Your task to perform on an android device: install app "Speedtest by Ookla" Image 0: 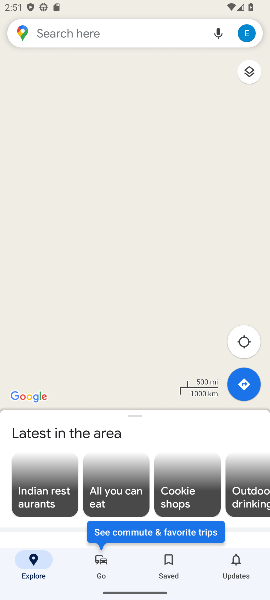
Step 0: press home button
Your task to perform on an android device: install app "Speedtest by Ookla" Image 1: 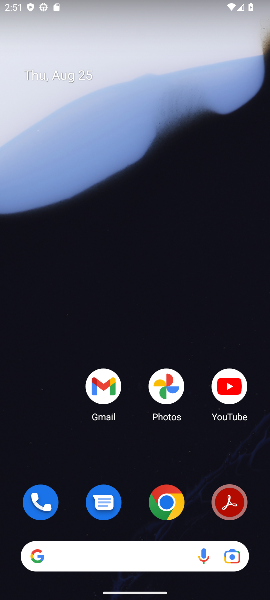
Step 1: drag from (131, 531) to (206, 3)
Your task to perform on an android device: install app "Speedtest by Ookla" Image 2: 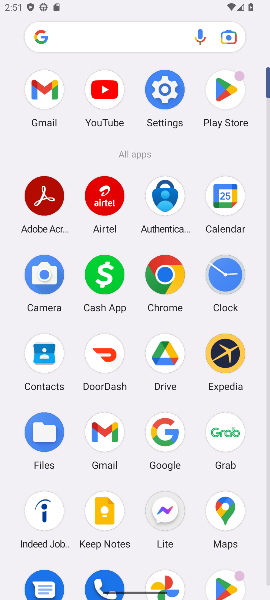
Step 2: click (228, 87)
Your task to perform on an android device: install app "Speedtest by Ookla" Image 3: 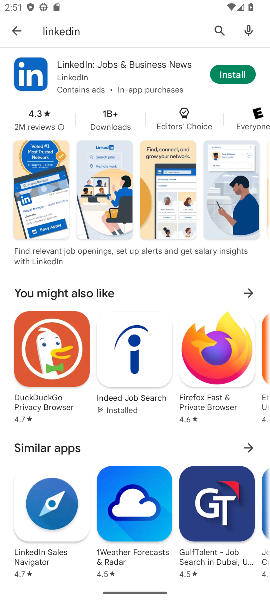
Step 3: click (214, 34)
Your task to perform on an android device: install app "Speedtest by Ookla" Image 4: 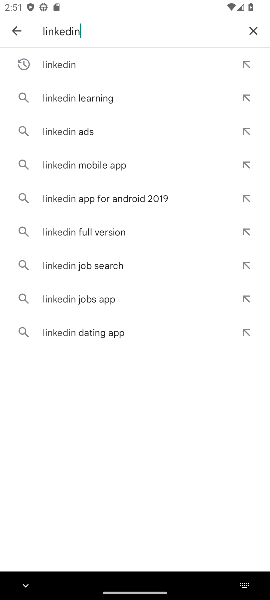
Step 4: click (256, 32)
Your task to perform on an android device: install app "Speedtest by Ookla" Image 5: 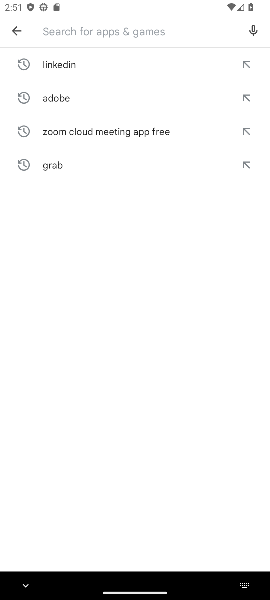
Step 5: type "spedtest"
Your task to perform on an android device: install app "Speedtest by Ookla" Image 6: 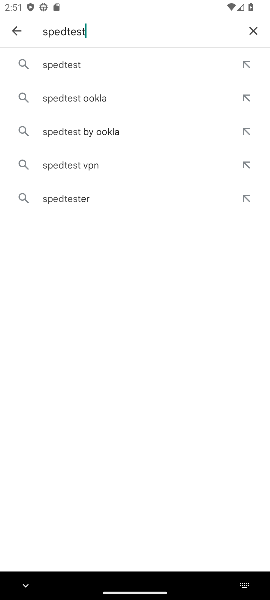
Step 6: click (83, 55)
Your task to perform on an android device: install app "Speedtest by Ookla" Image 7: 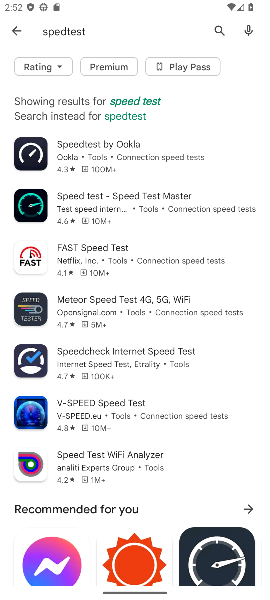
Step 7: click (118, 144)
Your task to perform on an android device: install app "Speedtest by Ookla" Image 8: 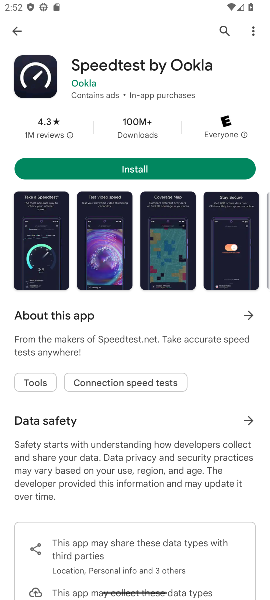
Step 8: click (152, 166)
Your task to perform on an android device: install app "Speedtest by Ookla" Image 9: 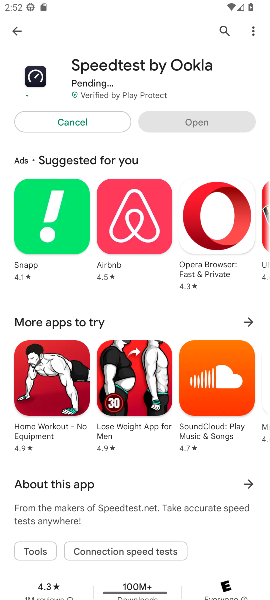
Step 9: task complete